Your task to perform on an android device: Go to privacy settings Image 0: 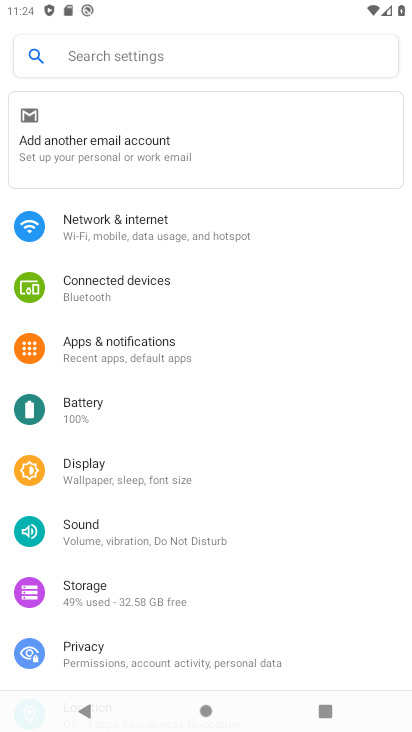
Step 0: press home button
Your task to perform on an android device: Go to privacy settings Image 1: 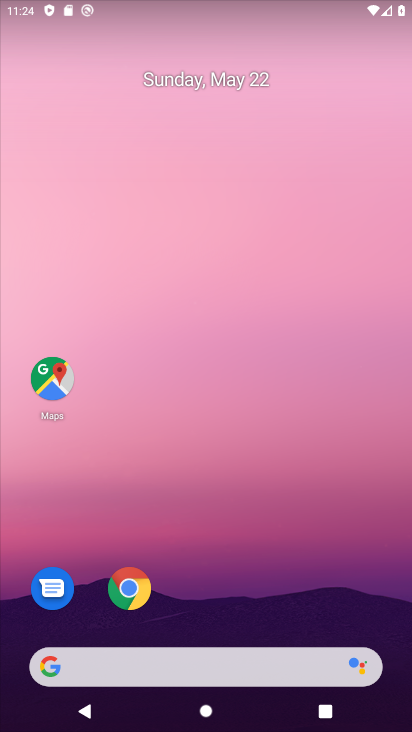
Step 1: drag from (249, 698) to (292, 119)
Your task to perform on an android device: Go to privacy settings Image 2: 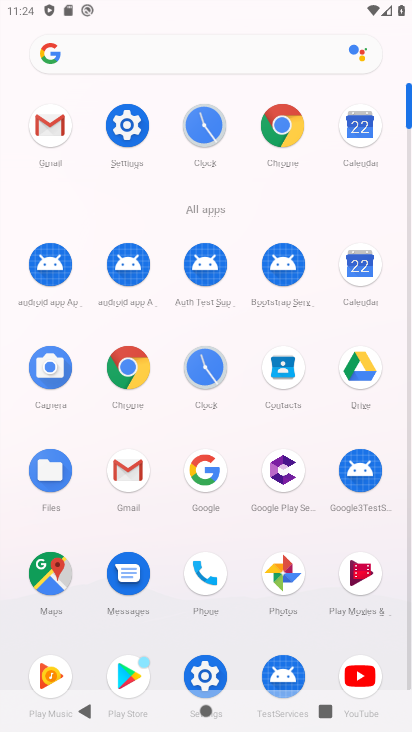
Step 2: click (201, 666)
Your task to perform on an android device: Go to privacy settings Image 3: 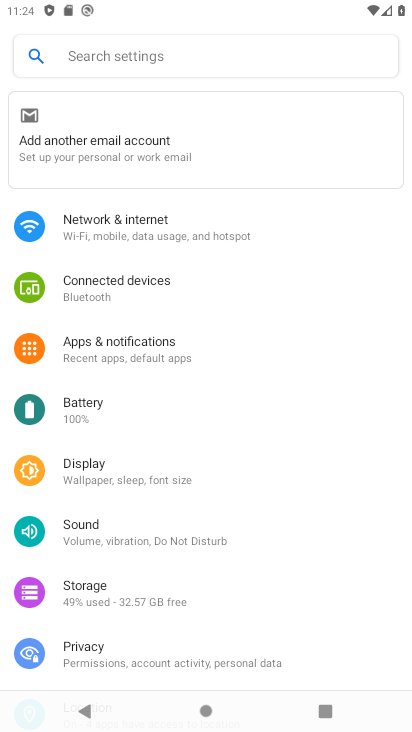
Step 3: click (111, 647)
Your task to perform on an android device: Go to privacy settings Image 4: 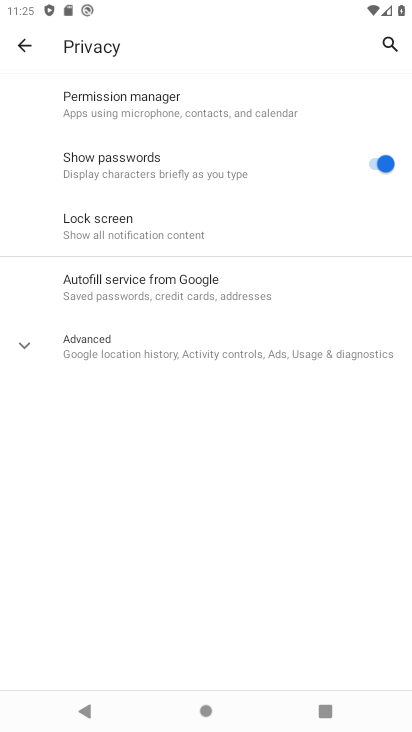
Step 4: task complete